Your task to perform on an android device: Is it going to rain tomorrow? Image 0: 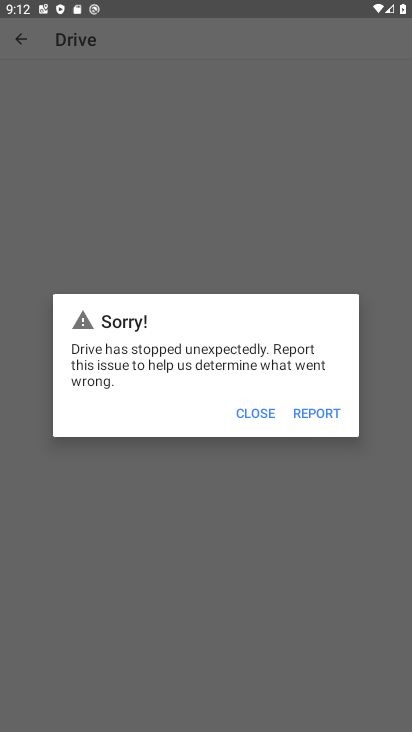
Step 0: click (134, 651)
Your task to perform on an android device: Is it going to rain tomorrow? Image 1: 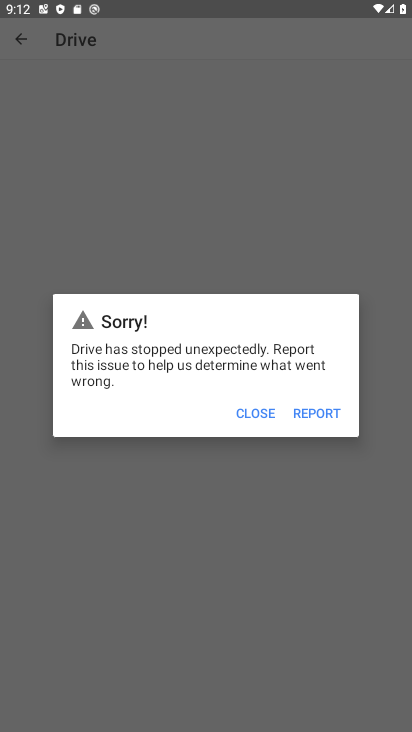
Step 1: press home button
Your task to perform on an android device: Is it going to rain tomorrow? Image 2: 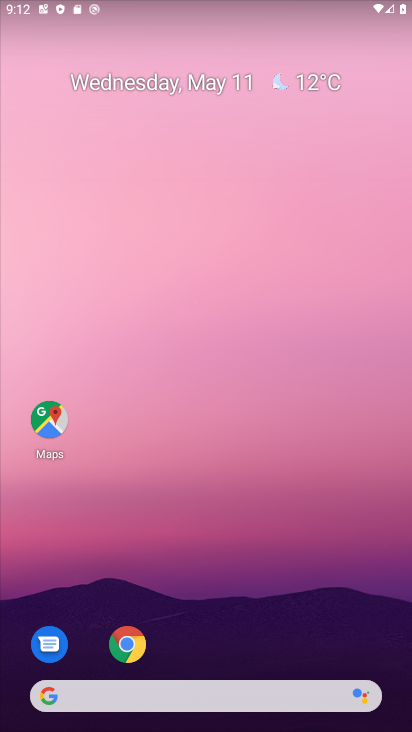
Step 2: click (147, 651)
Your task to perform on an android device: Is it going to rain tomorrow? Image 3: 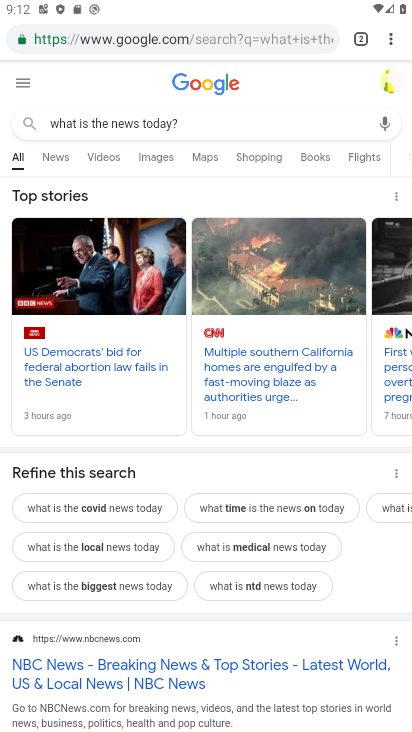
Step 3: click (282, 124)
Your task to perform on an android device: Is it going to rain tomorrow? Image 4: 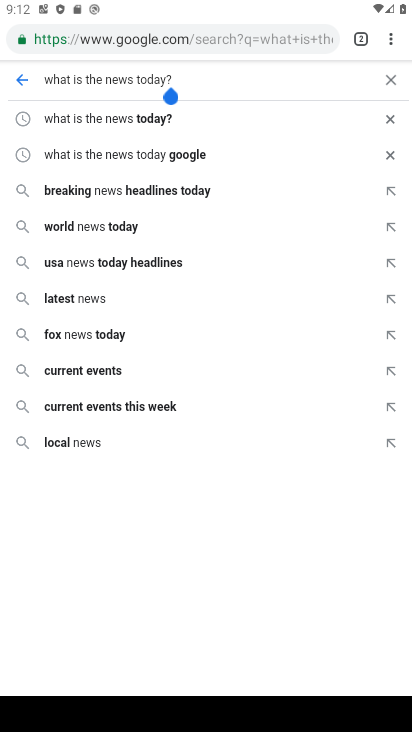
Step 4: click (394, 74)
Your task to perform on an android device: Is it going to rain tomorrow? Image 5: 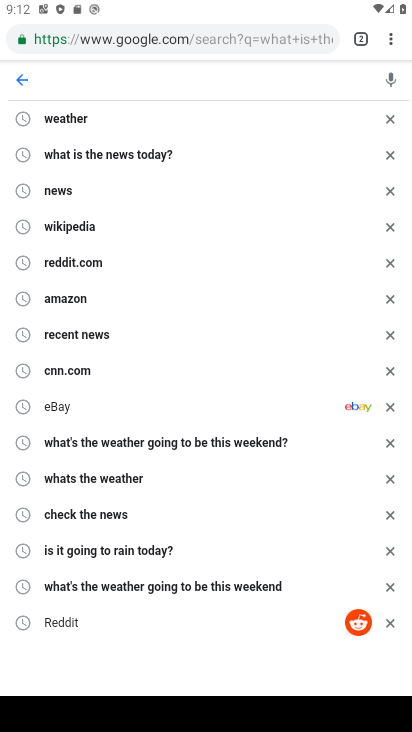
Step 5: drag from (264, 505) to (224, 75)
Your task to perform on an android device: Is it going to rain tomorrow? Image 6: 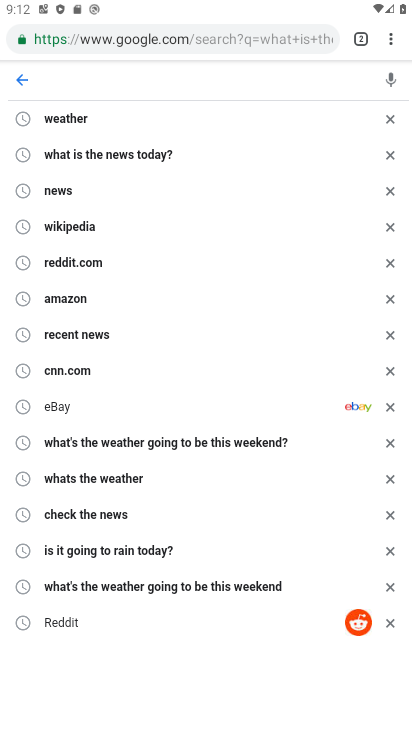
Step 6: click (224, 75)
Your task to perform on an android device: Is it going to rain tomorrow? Image 7: 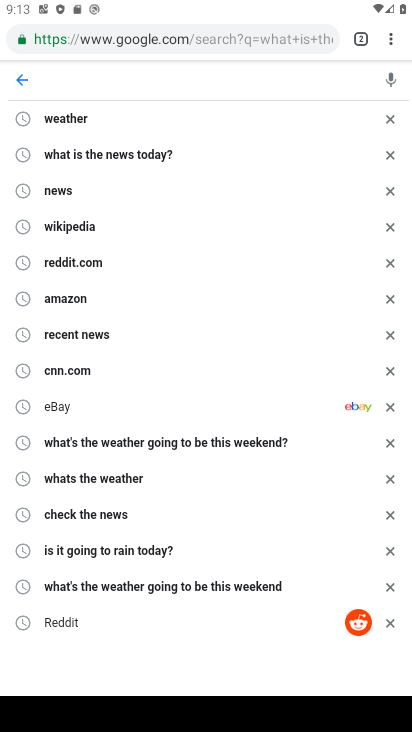
Step 7: type "is it going to rain tomorrow"
Your task to perform on an android device: Is it going to rain tomorrow? Image 8: 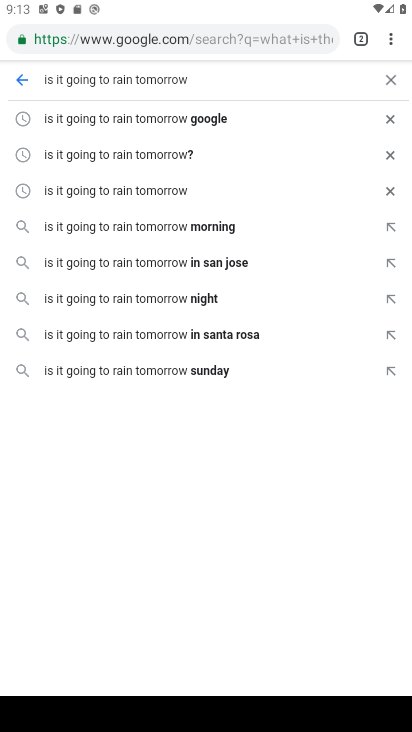
Step 8: click (171, 161)
Your task to perform on an android device: Is it going to rain tomorrow? Image 9: 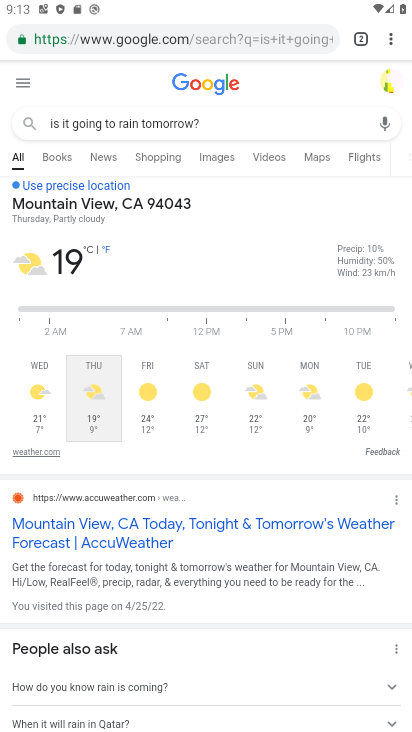
Step 9: task complete